Your task to perform on an android device: check android version Image 0: 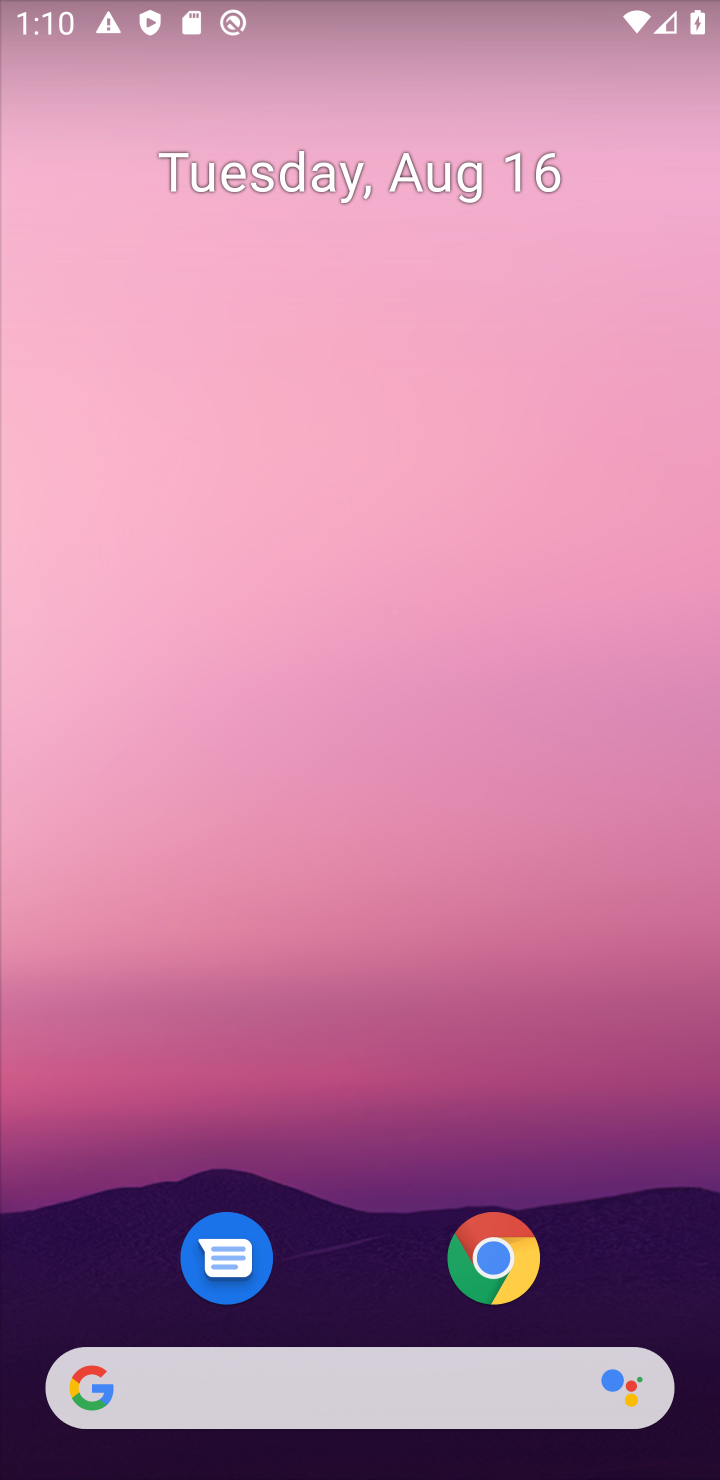
Step 0: drag from (480, 567) to (548, 265)
Your task to perform on an android device: check android version Image 1: 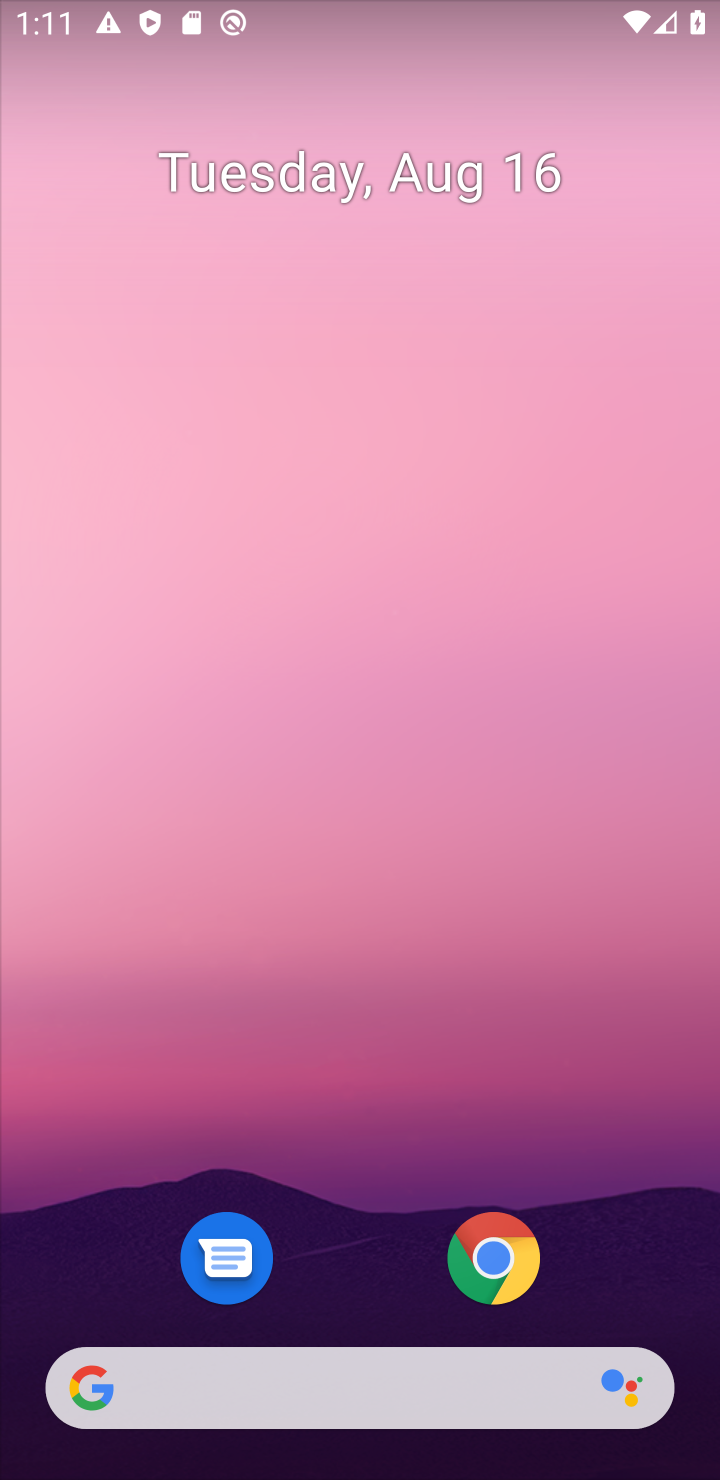
Step 1: task complete